Your task to perform on an android device: Go to wifi settings Image 0: 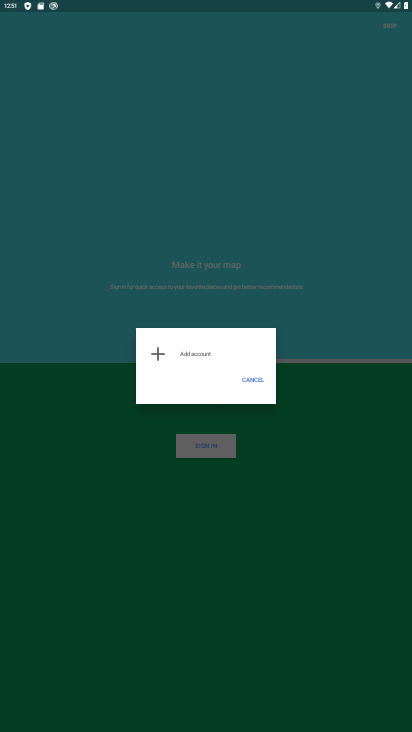
Step 0: press home button
Your task to perform on an android device: Go to wifi settings Image 1: 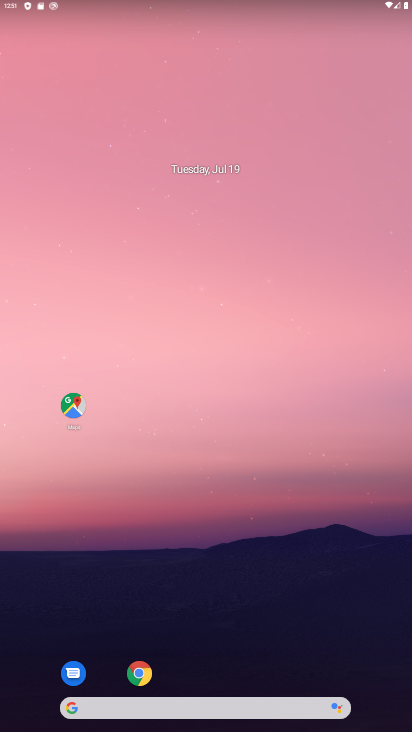
Step 1: drag from (199, 694) to (129, 38)
Your task to perform on an android device: Go to wifi settings Image 2: 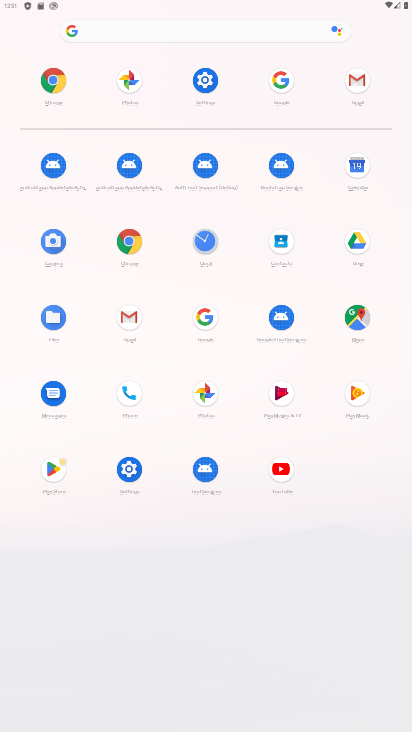
Step 2: click (135, 472)
Your task to perform on an android device: Go to wifi settings Image 3: 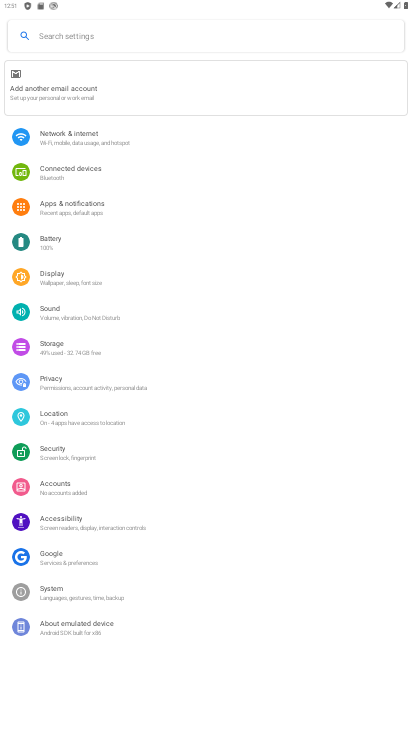
Step 3: click (90, 142)
Your task to perform on an android device: Go to wifi settings Image 4: 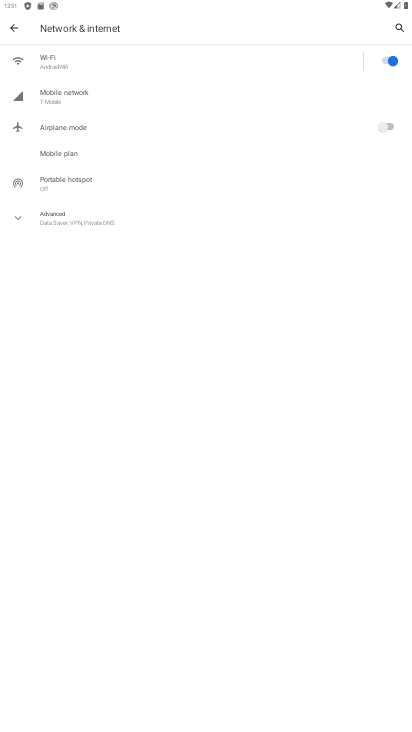
Step 4: click (52, 64)
Your task to perform on an android device: Go to wifi settings Image 5: 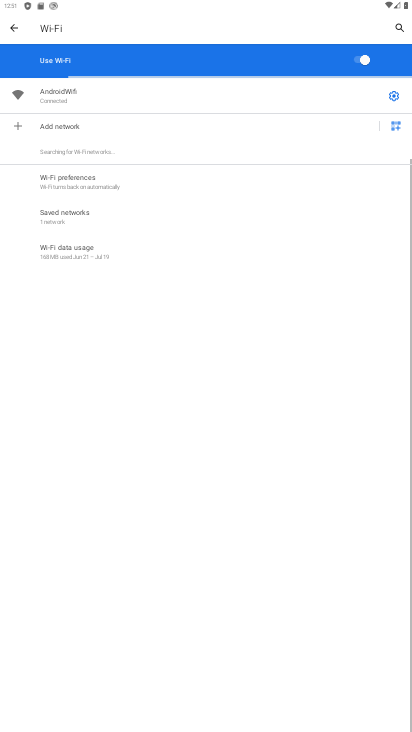
Step 5: task complete